Your task to perform on an android device: Open location settings Image 0: 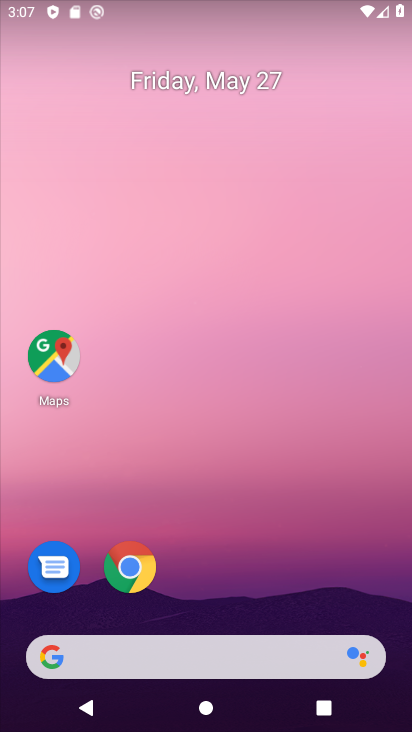
Step 0: drag from (360, 580) to (290, 131)
Your task to perform on an android device: Open location settings Image 1: 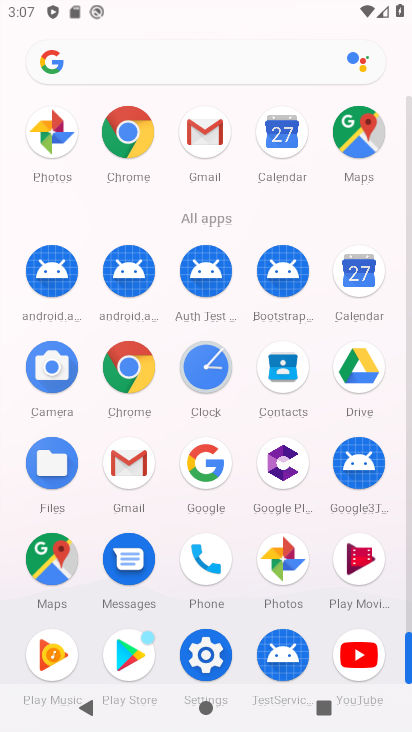
Step 1: click (206, 654)
Your task to perform on an android device: Open location settings Image 2: 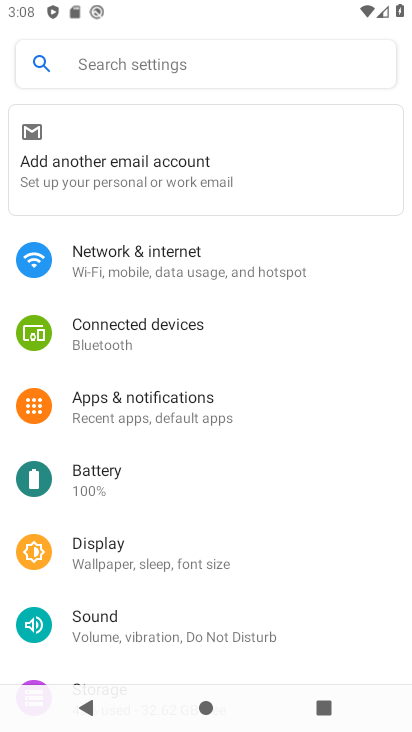
Step 2: drag from (220, 599) to (223, 247)
Your task to perform on an android device: Open location settings Image 3: 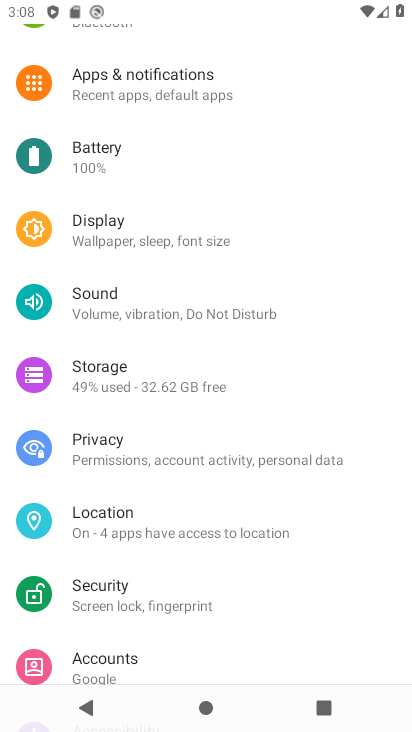
Step 3: click (131, 509)
Your task to perform on an android device: Open location settings Image 4: 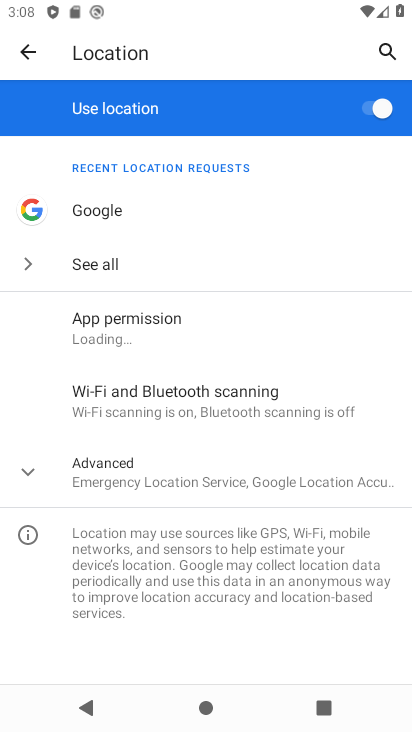
Step 4: click (24, 468)
Your task to perform on an android device: Open location settings Image 5: 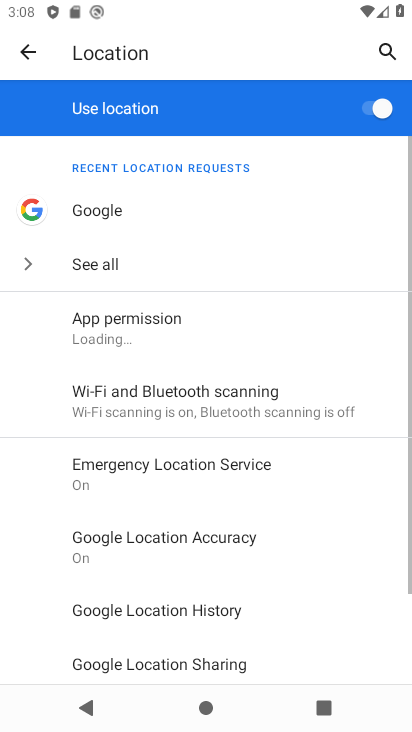
Step 5: task complete